Your task to perform on an android device: open app "Facebook" (install if not already installed), go to login, and select forgot password Image 0: 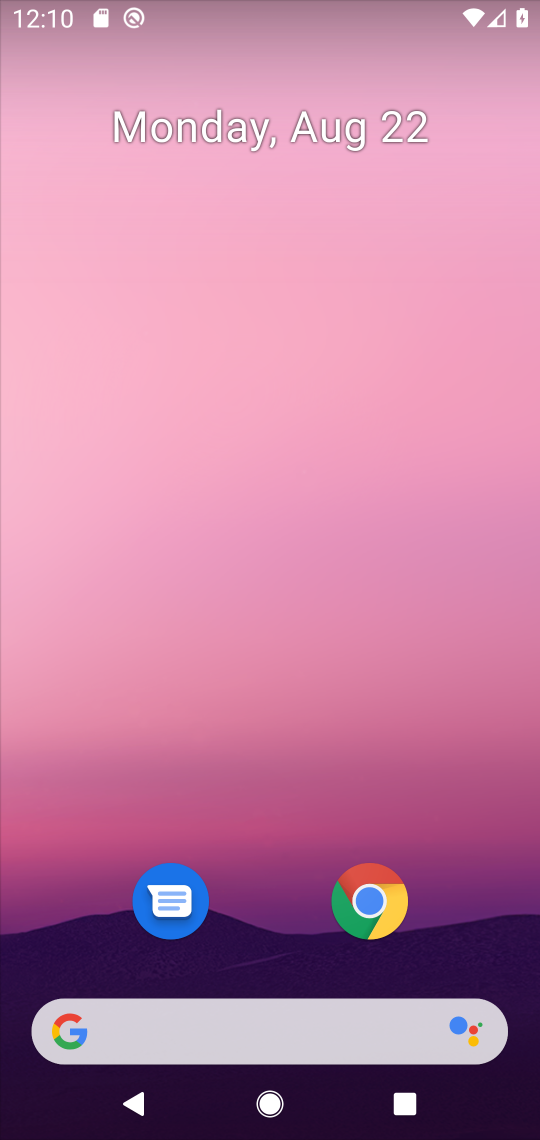
Step 0: drag from (276, 965) to (304, 2)
Your task to perform on an android device: open app "Facebook" (install if not already installed), go to login, and select forgot password Image 1: 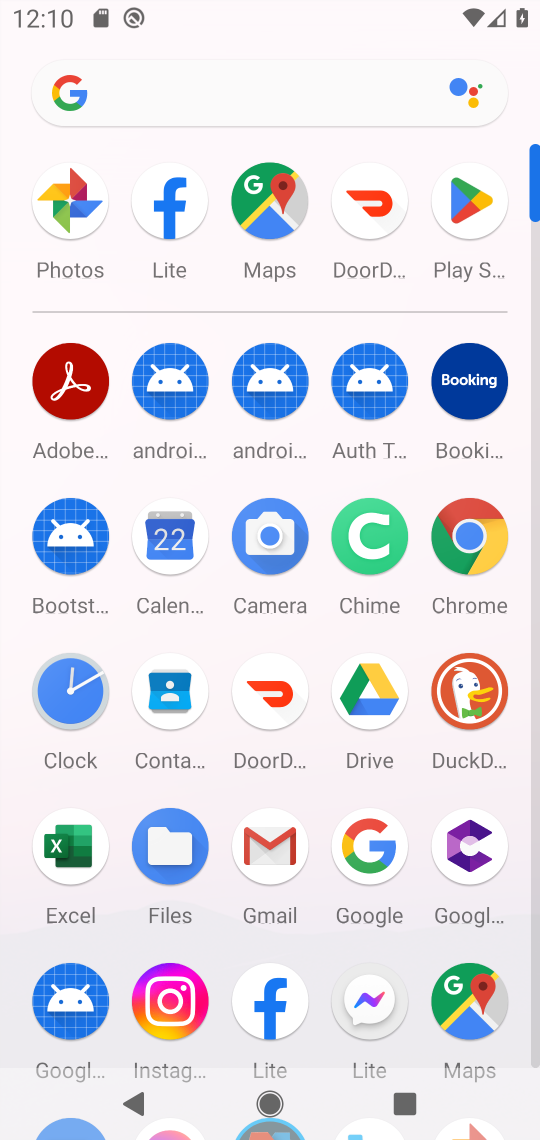
Step 1: click (183, 364)
Your task to perform on an android device: open app "Facebook" (install if not already installed), go to login, and select forgot password Image 2: 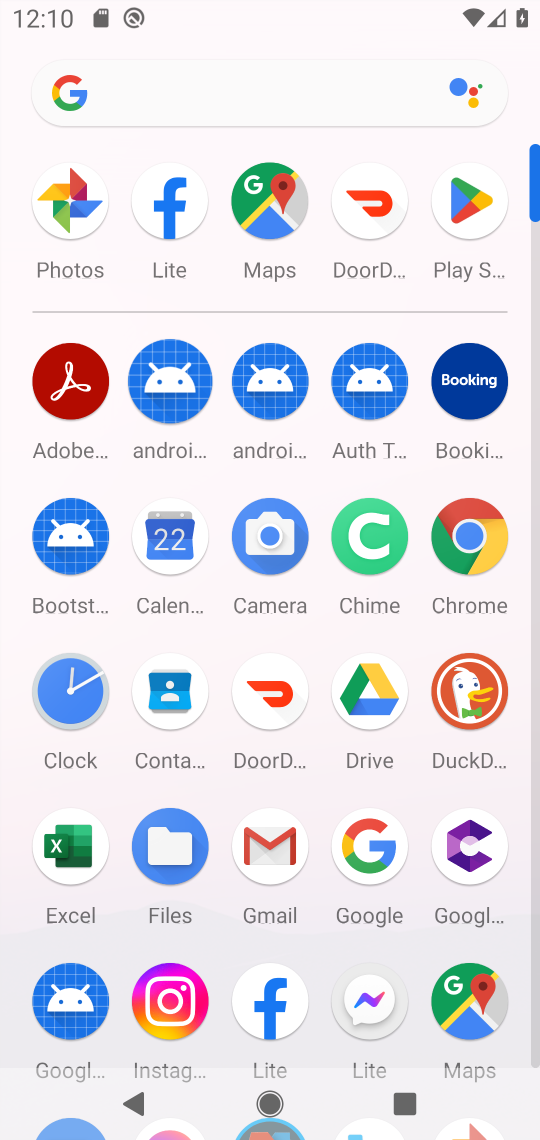
Step 2: task complete